Your task to perform on an android device: Check the news Image 0: 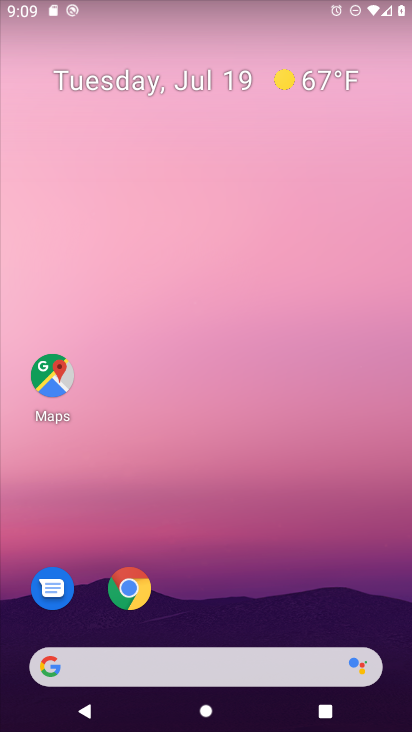
Step 0: drag from (0, 250) to (401, 463)
Your task to perform on an android device: Check the news Image 1: 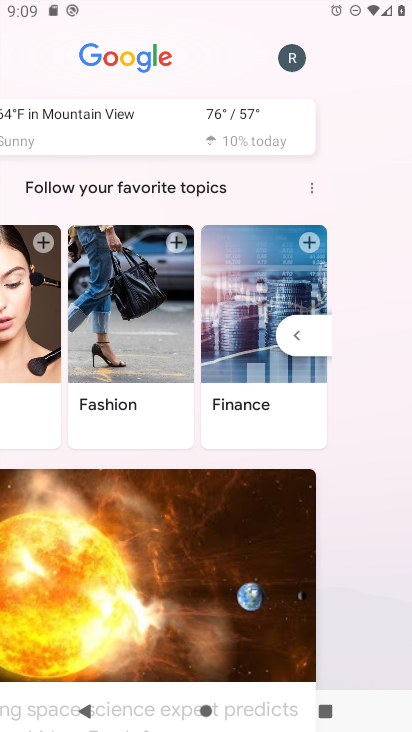
Step 1: task complete